Your task to perform on an android device: turn off airplane mode Image 0: 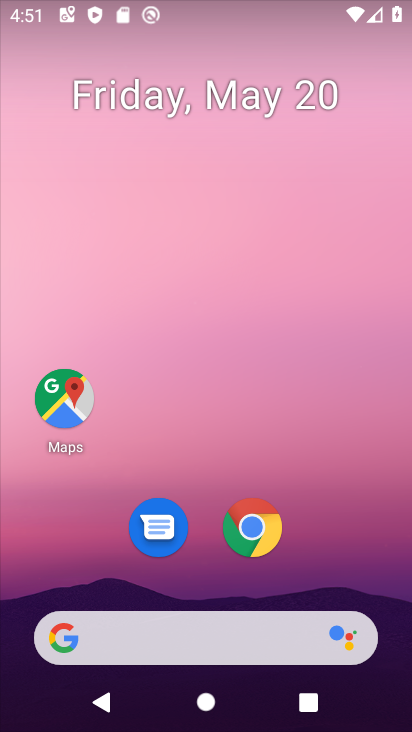
Step 0: drag from (197, 611) to (251, 132)
Your task to perform on an android device: turn off airplane mode Image 1: 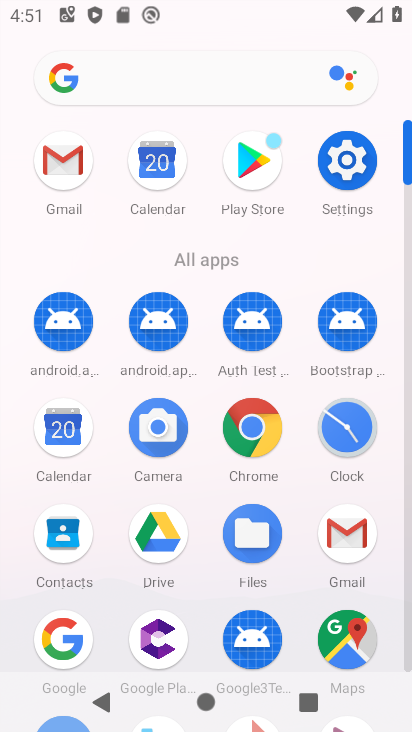
Step 1: click (362, 153)
Your task to perform on an android device: turn off airplane mode Image 2: 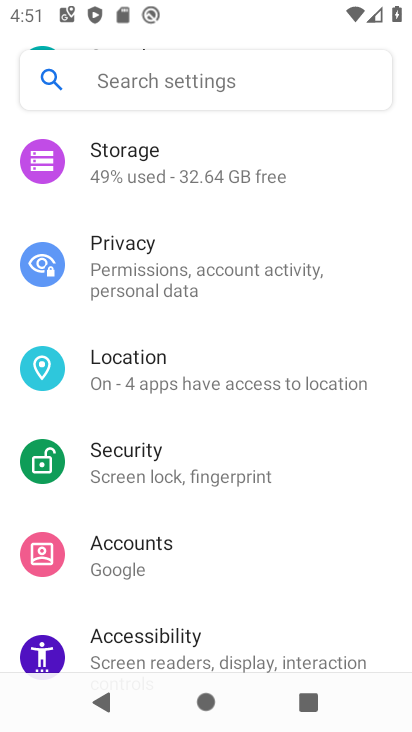
Step 2: drag from (164, 145) to (229, 508)
Your task to perform on an android device: turn off airplane mode Image 3: 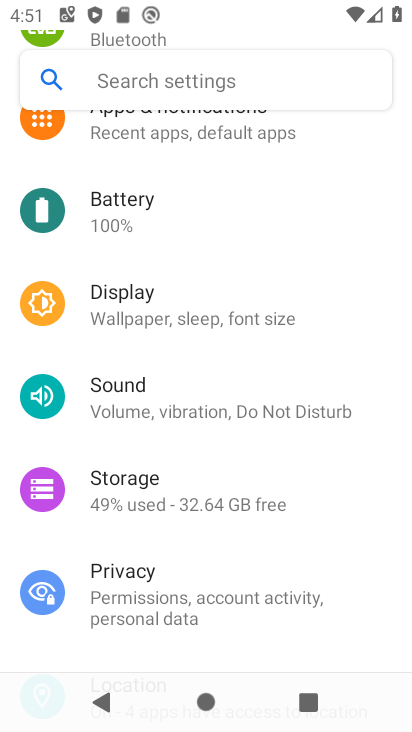
Step 3: drag from (167, 146) to (231, 521)
Your task to perform on an android device: turn off airplane mode Image 4: 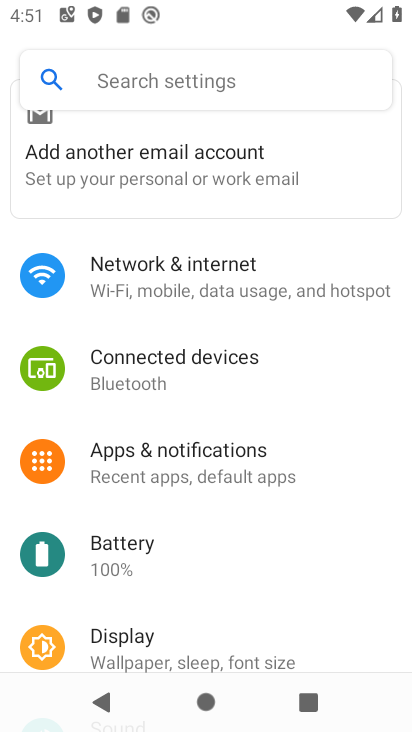
Step 4: click (184, 261)
Your task to perform on an android device: turn off airplane mode Image 5: 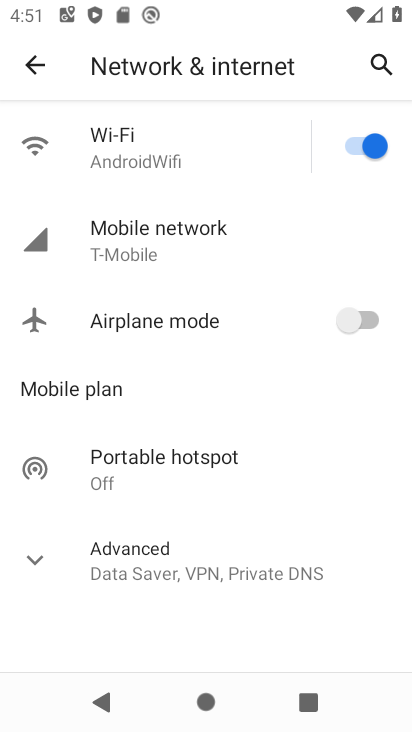
Step 5: task complete